Your task to perform on an android device: turn on priority inbox in the gmail app Image 0: 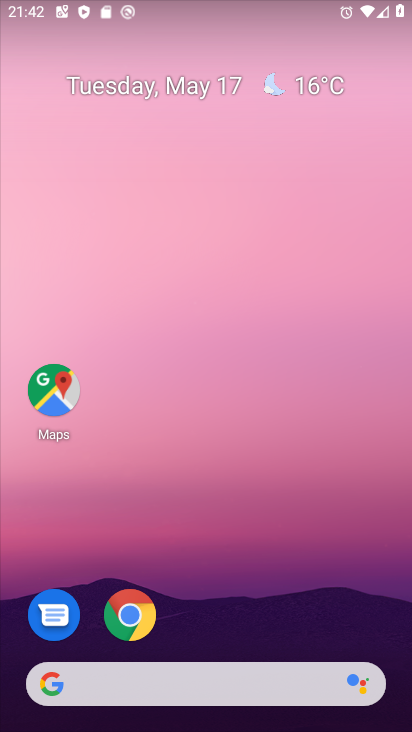
Step 0: drag from (263, 657) to (254, 34)
Your task to perform on an android device: turn on priority inbox in the gmail app Image 1: 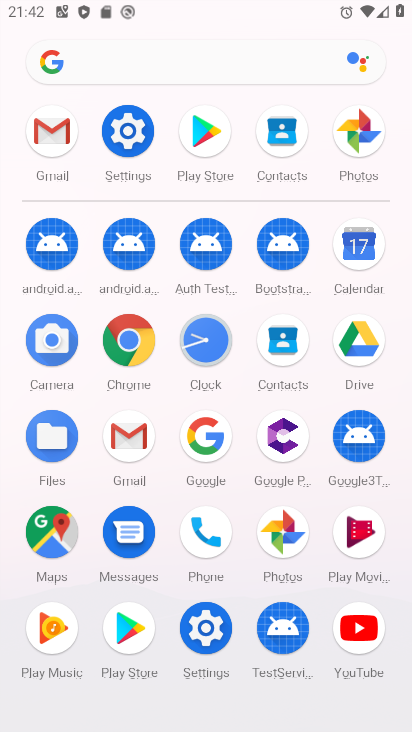
Step 1: click (142, 434)
Your task to perform on an android device: turn on priority inbox in the gmail app Image 2: 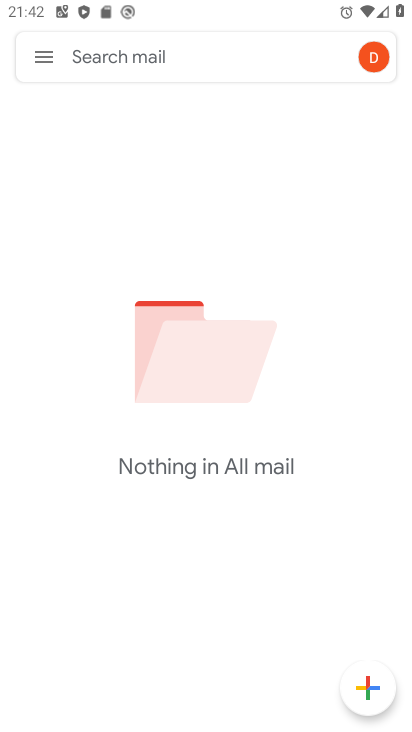
Step 2: click (43, 51)
Your task to perform on an android device: turn on priority inbox in the gmail app Image 3: 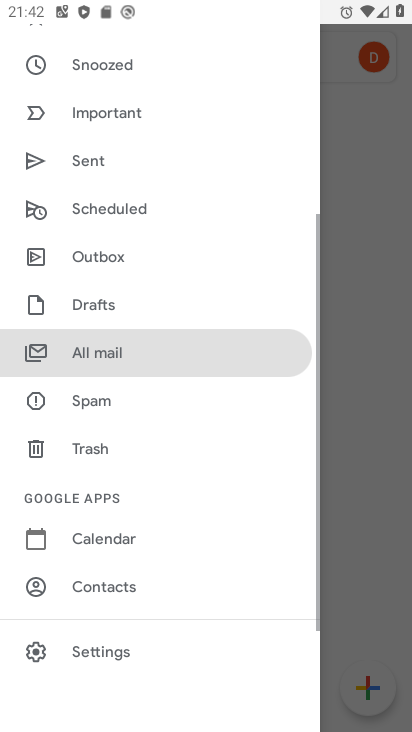
Step 3: click (127, 654)
Your task to perform on an android device: turn on priority inbox in the gmail app Image 4: 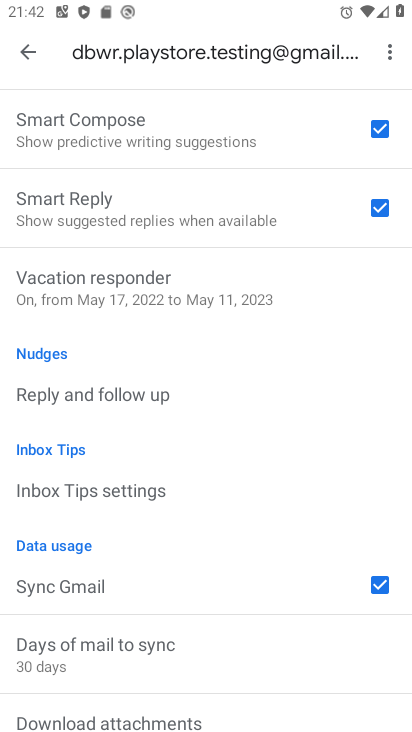
Step 4: drag from (154, 110) to (177, 557)
Your task to perform on an android device: turn on priority inbox in the gmail app Image 5: 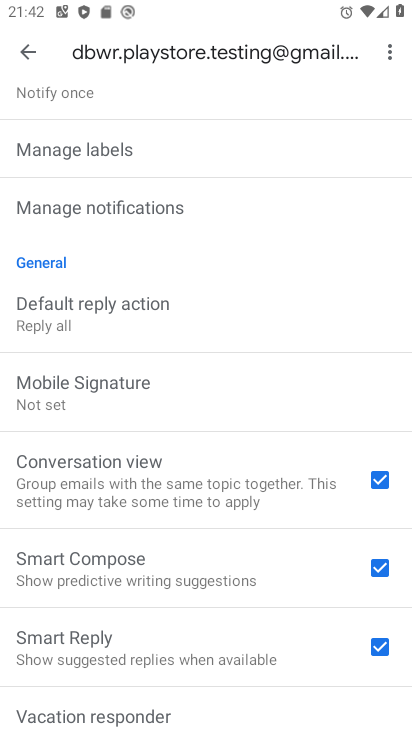
Step 5: drag from (158, 113) to (177, 674)
Your task to perform on an android device: turn on priority inbox in the gmail app Image 6: 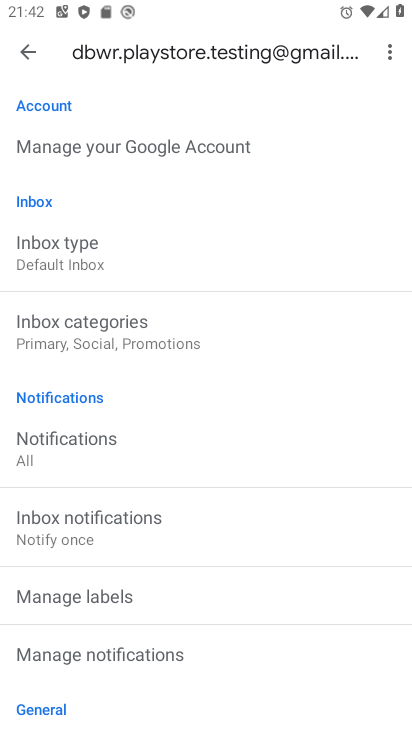
Step 6: click (121, 251)
Your task to perform on an android device: turn on priority inbox in the gmail app Image 7: 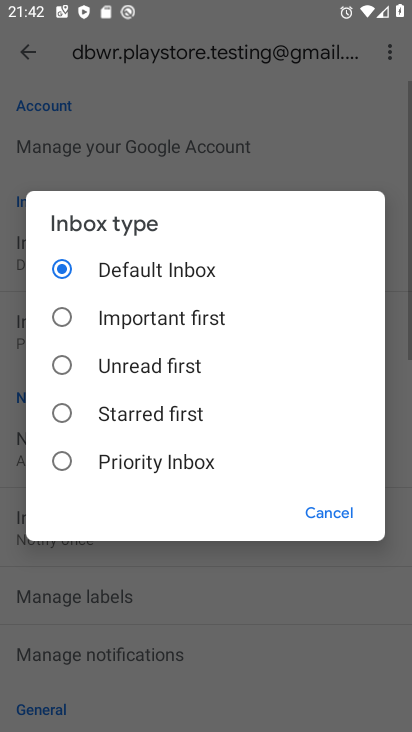
Step 7: click (117, 470)
Your task to perform on an android device: turn on priority inbox in the gmail app Image 8: 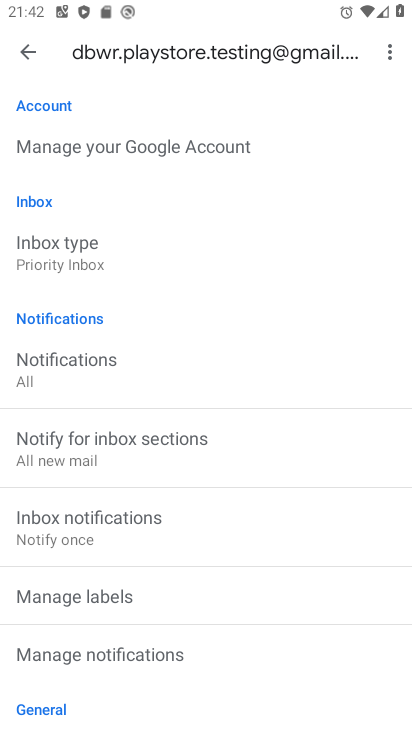
Step 8: task complete